Your task to perform on an android device: Go to privacy settings Image 0: 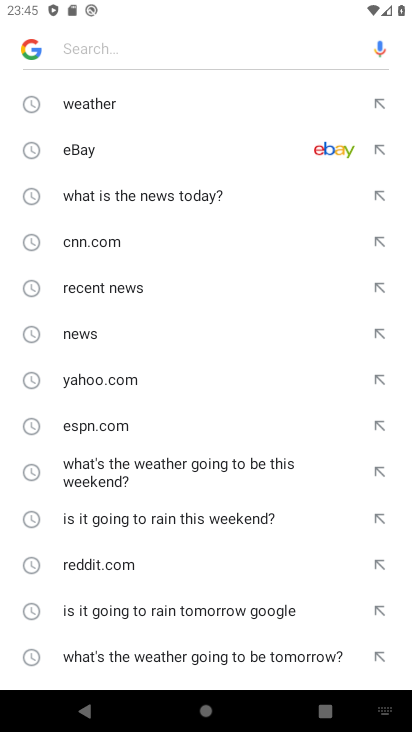
Step 0: press home button
Your task to perform on an android device: Go to privacy settings Image 1: 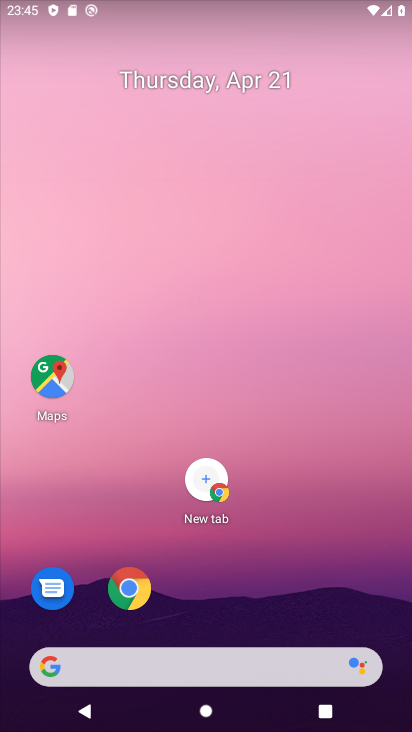
Step 1: drag from (204, 554) to (253, 140)
Your task to perform on an android device: Go to privacy settings Image 2: 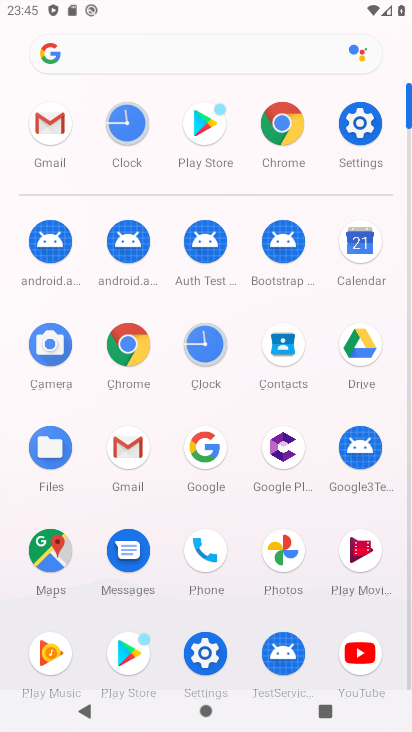
Step 2: click (366, 120)
Your task to perform on an android device: Go to privacy settings Image 3: 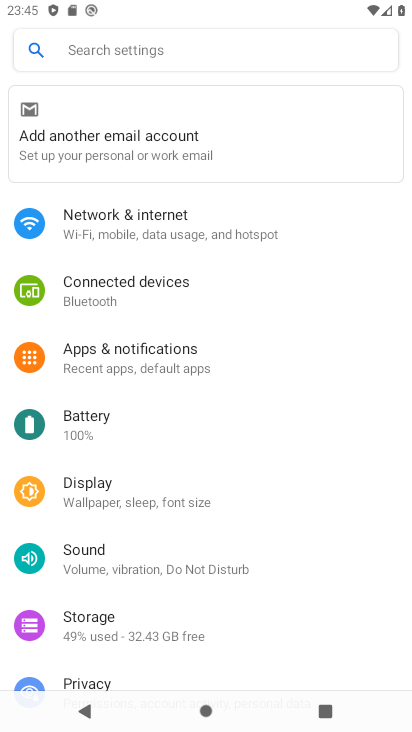
Step 3: click (121, 681)
Your task to perform on an android device: Go to privacy settings Image 4: 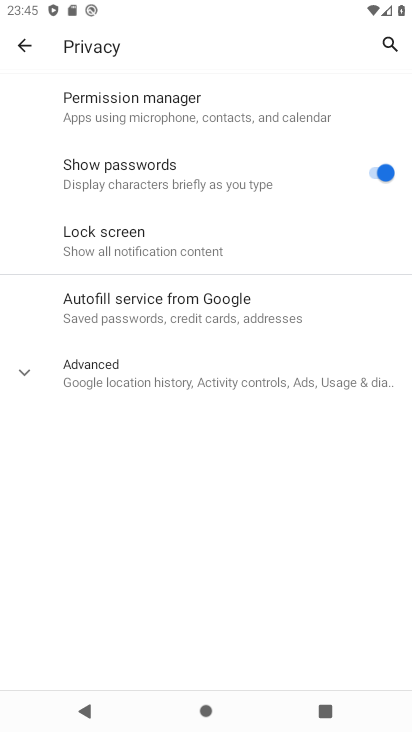
Step 4: task complete